Your task to perform on an android device: toggle improve location accuracy Image 0: 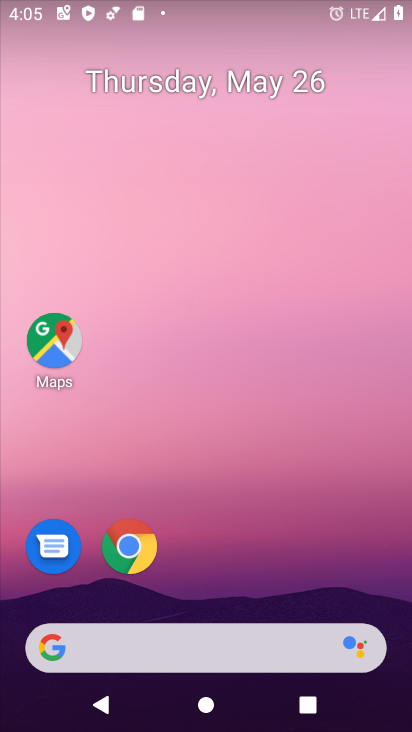
Step 0: drag from (256, 472) to (350, 12)
Your task to perform on an android device: toggle improve location accuracy Image 1: 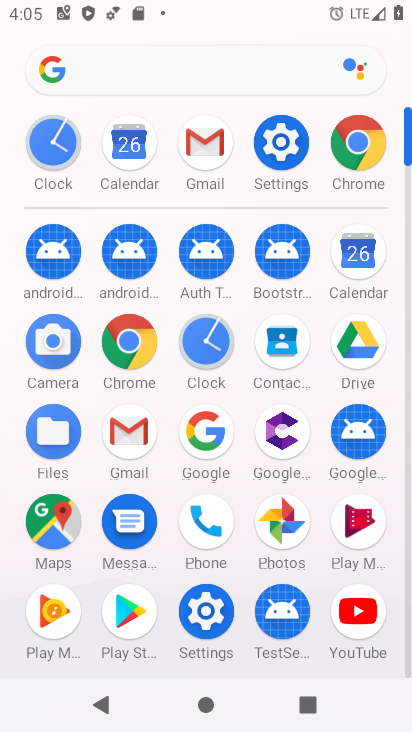
Step 1: click (300, 153)
Your task to perform on an android device: toggle improve location accuracy Image 2: 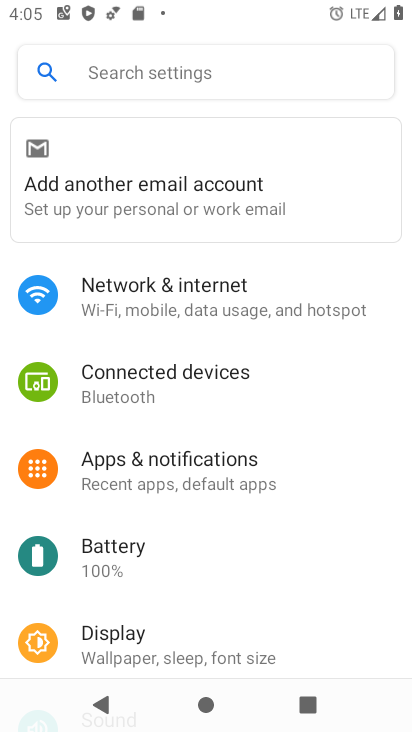
Step 2: drag from (219, 437) to (263, 168)
Your task to perform on an android device: toggle improve location accuracy Image 3: 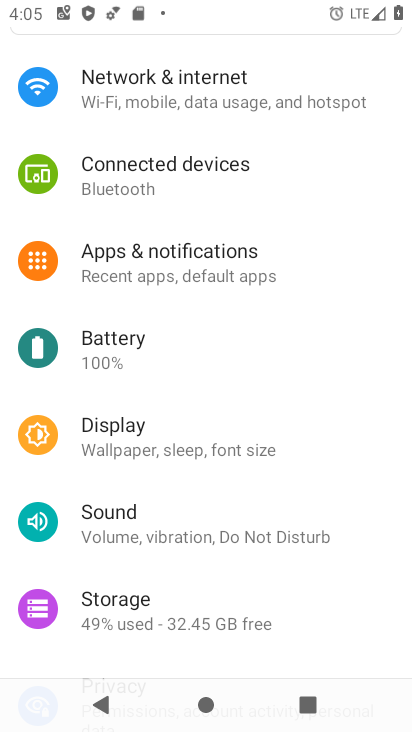
Step 3: drag from (161, 589) to (239, 157)
Your task to perform on an android device: toggle improve location accuracy Image 4: 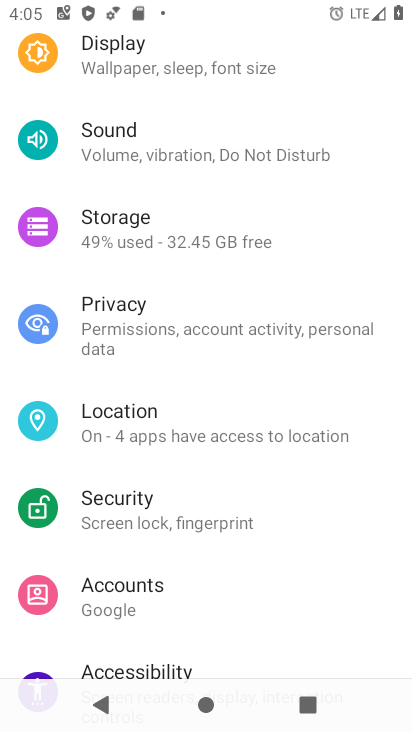
Step 4: click (124, 430)
Your task to perform on an android device: toggle improve location accuracy Image 5: 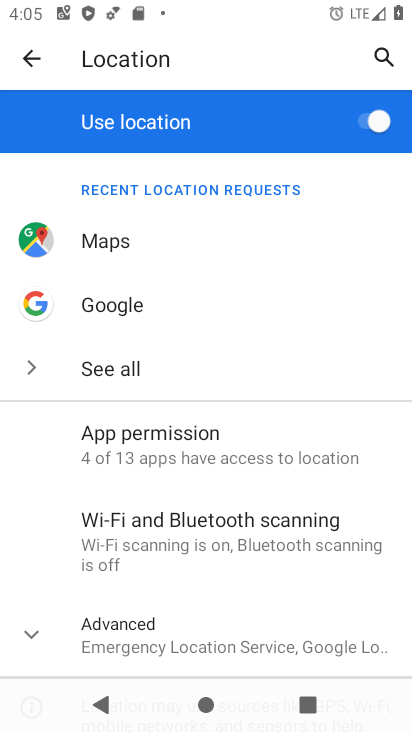
Step 5: click (139, 636)
Your task to perform on an android device: toggle improve location accuracy Image 6: 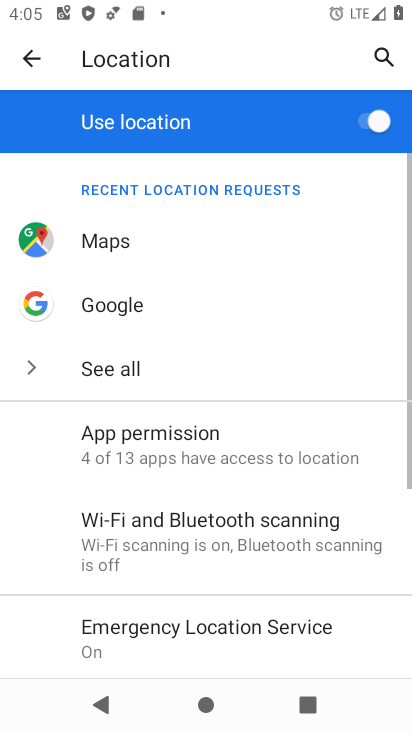
Step 6: drag from (139, 636) to (228, 249)
Your task to perform on an android device: toggle improve location accuracy Image 7: 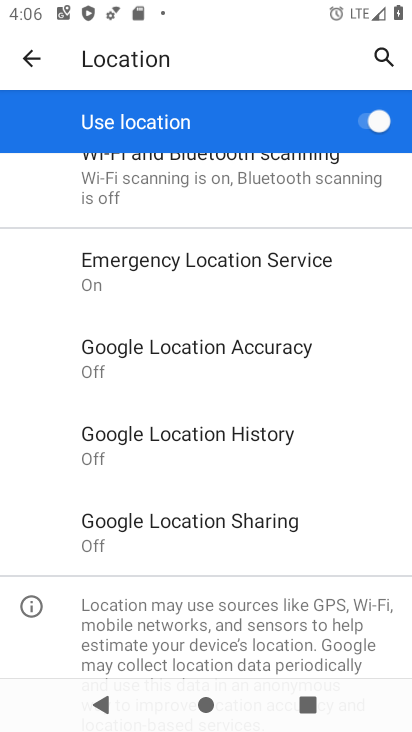
Step 7: click (252, 361)
Your task to perform on an android device: toggle improve location accuracy Image 8: 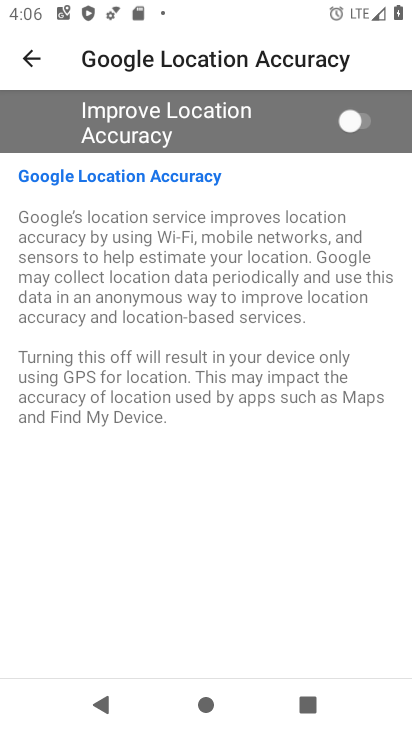
Step 8: click (347, 113)
Your task to perform on an android device: toggle improve location accuracy Image 9: 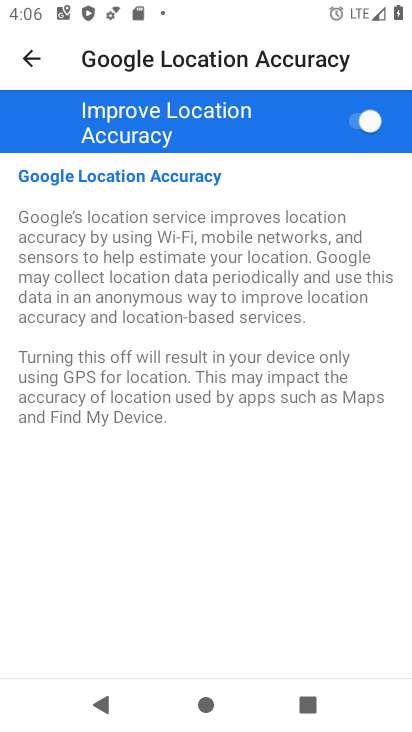
Step 9: task complete